Your task to perform on an android device: Go to location settings Image 0: 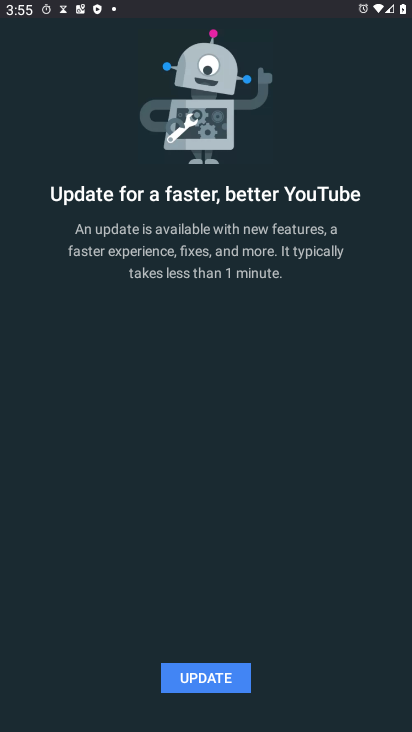
Step 0: press home button
Your task to perform on an android device: Go to location settings Image 1: 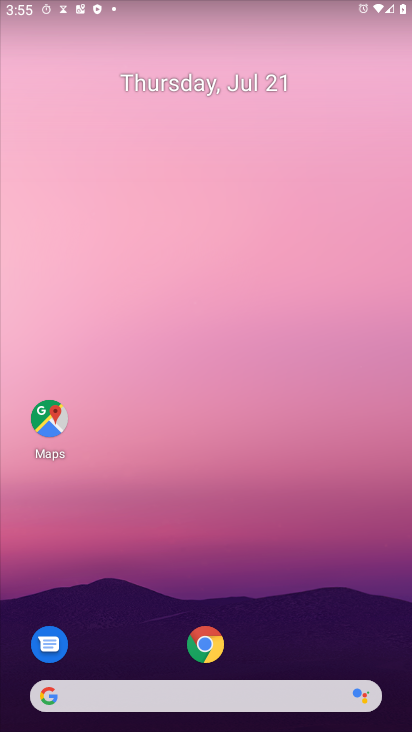
Step 1: drag from (341, 589) to (398, 10)
Your task to perform on an android device: Go to location settings Image 2: 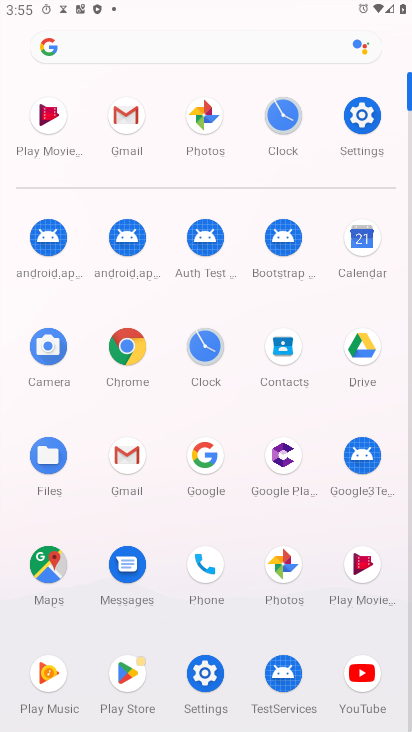
Step 2: click (362, 115)
Your task to perform on an android device: Go to location settings Image 3: 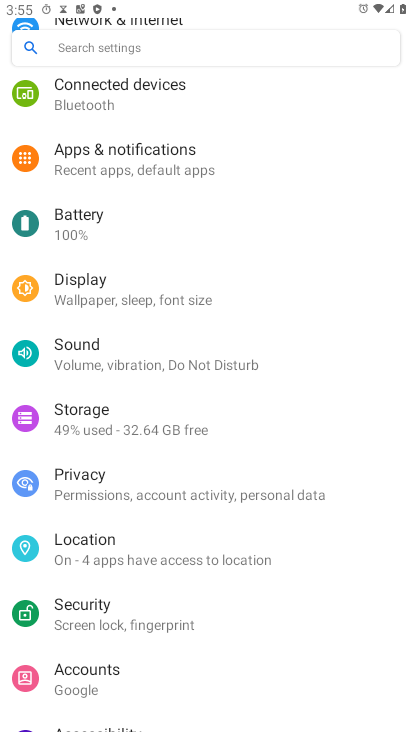
Step 3: click (83, 534)
Your task to perform on an android device: Go to location settings Image 4: 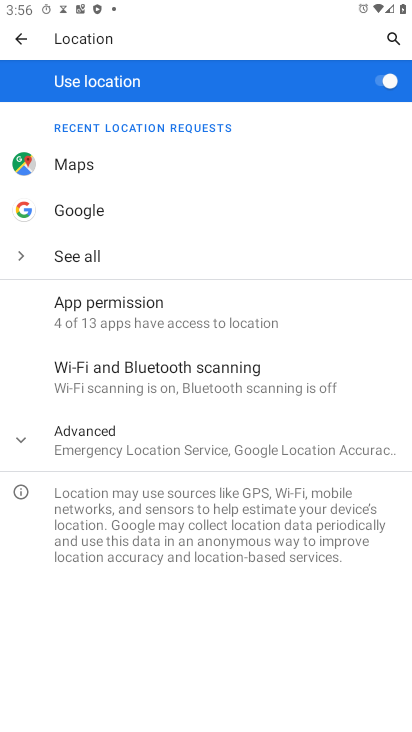
Step 4: task complete